Your task to perform on an android device: Clear the shopping cart on costco.com. Add "apple airpods pro" to the cart on costco.com Image 0: 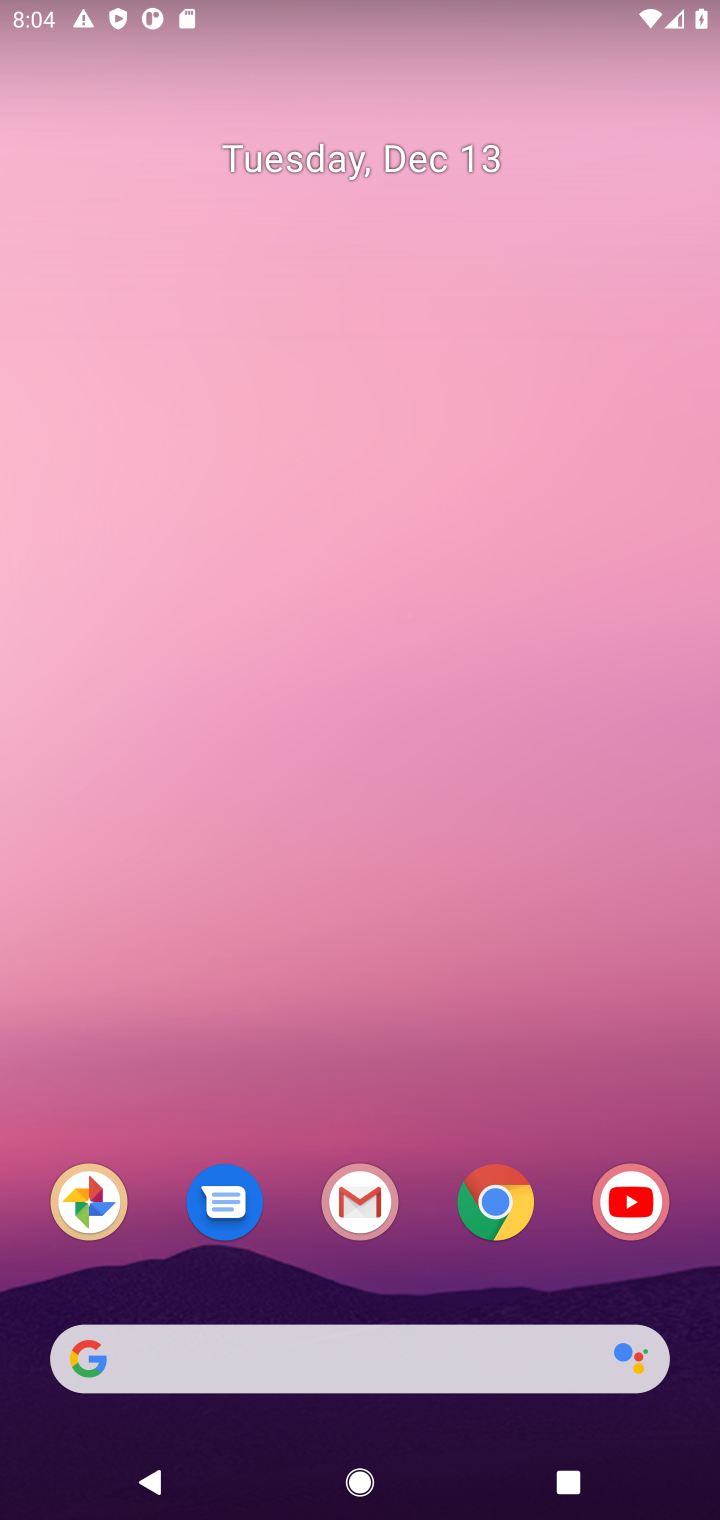
Step 0: click (492, 1206)
Your task to perform on an android device: Clear the shopping cart on costco.com. Add "apple airpods pro" to the cart on costco.com Image 1: 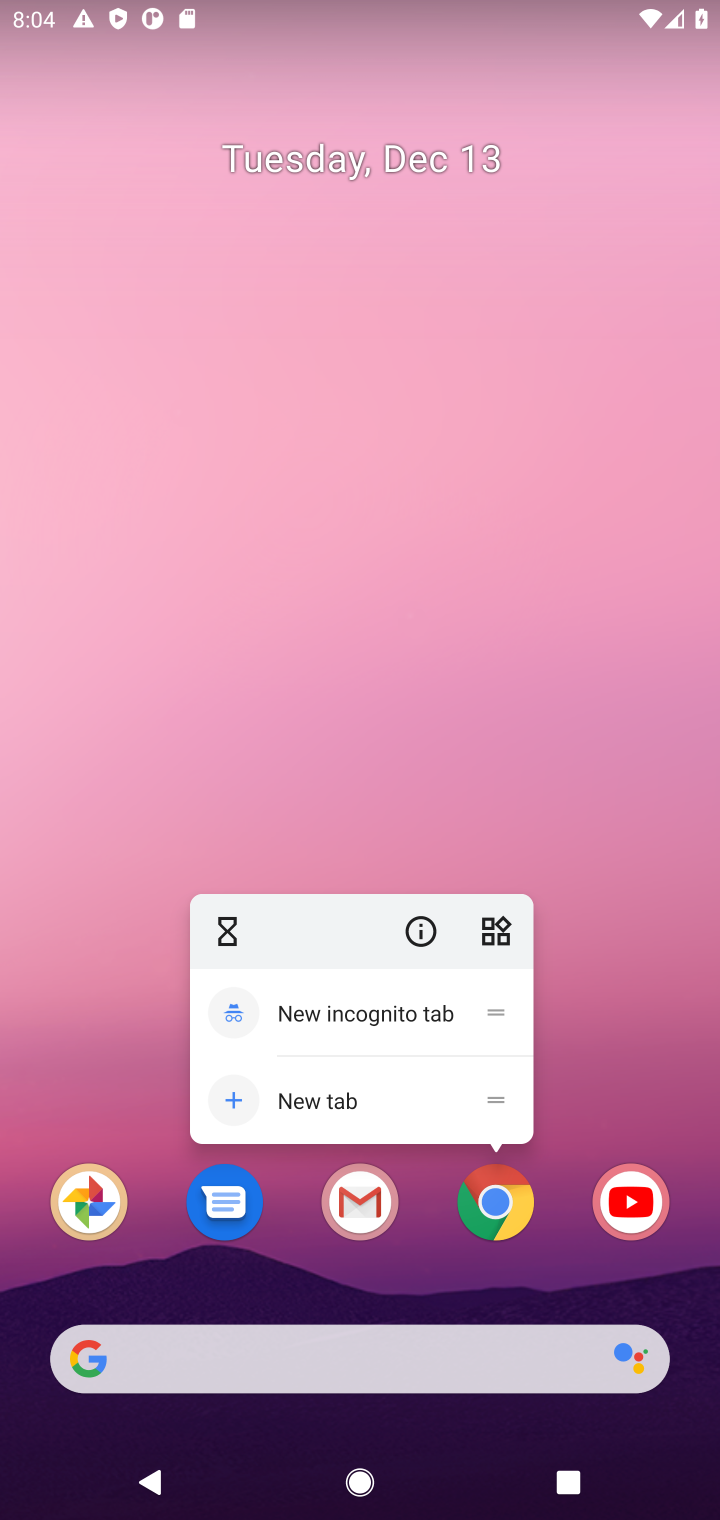
Step 1: click (492, 1206)
Your task to perform on an android device: Clear the shopping cart on costco.com. Add "apple airpods pro" to the cart on costco.com Image 2: 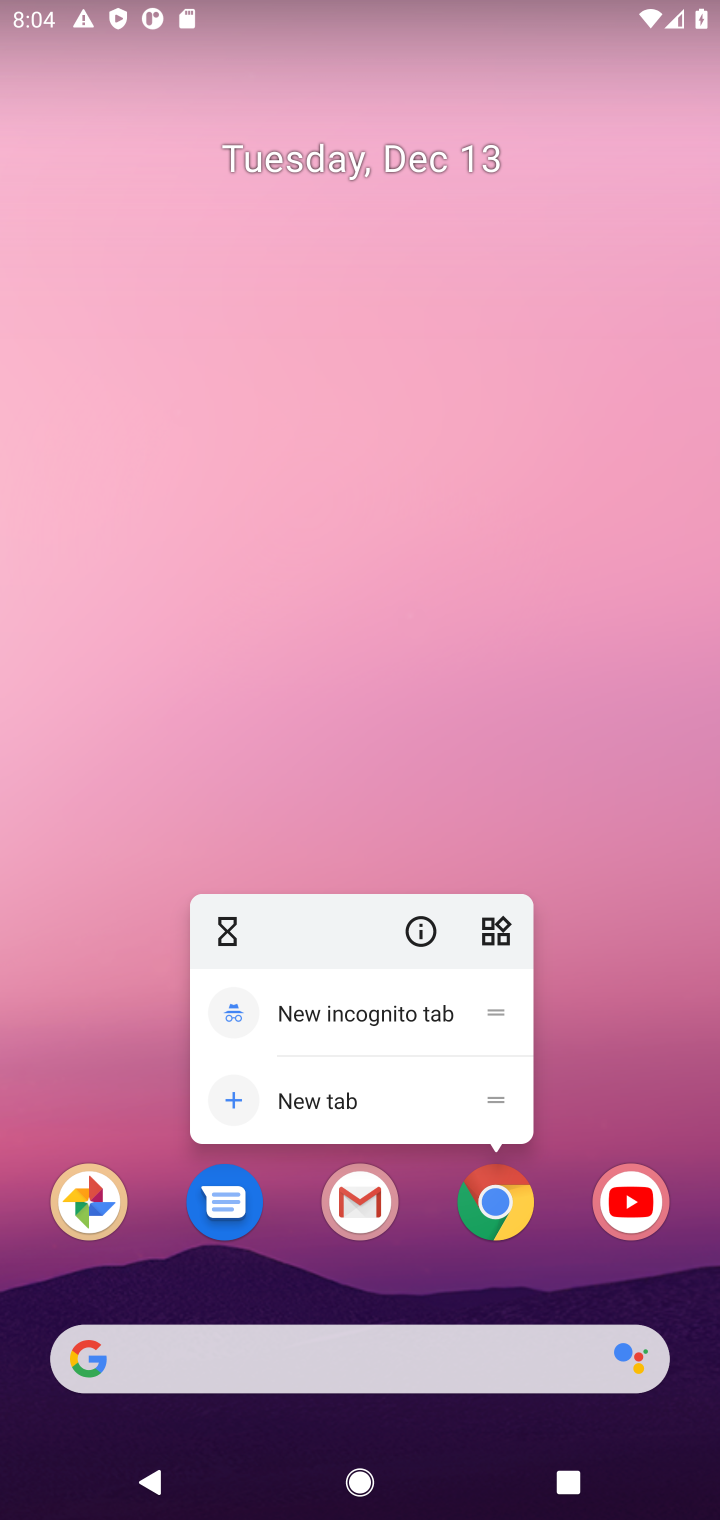
Step 2: click (494, 1213)
Your task to perform on an android device: Clear the shopping cart on costco.com. Add "apple airpods pro" to the cart on costco.com Image 3: 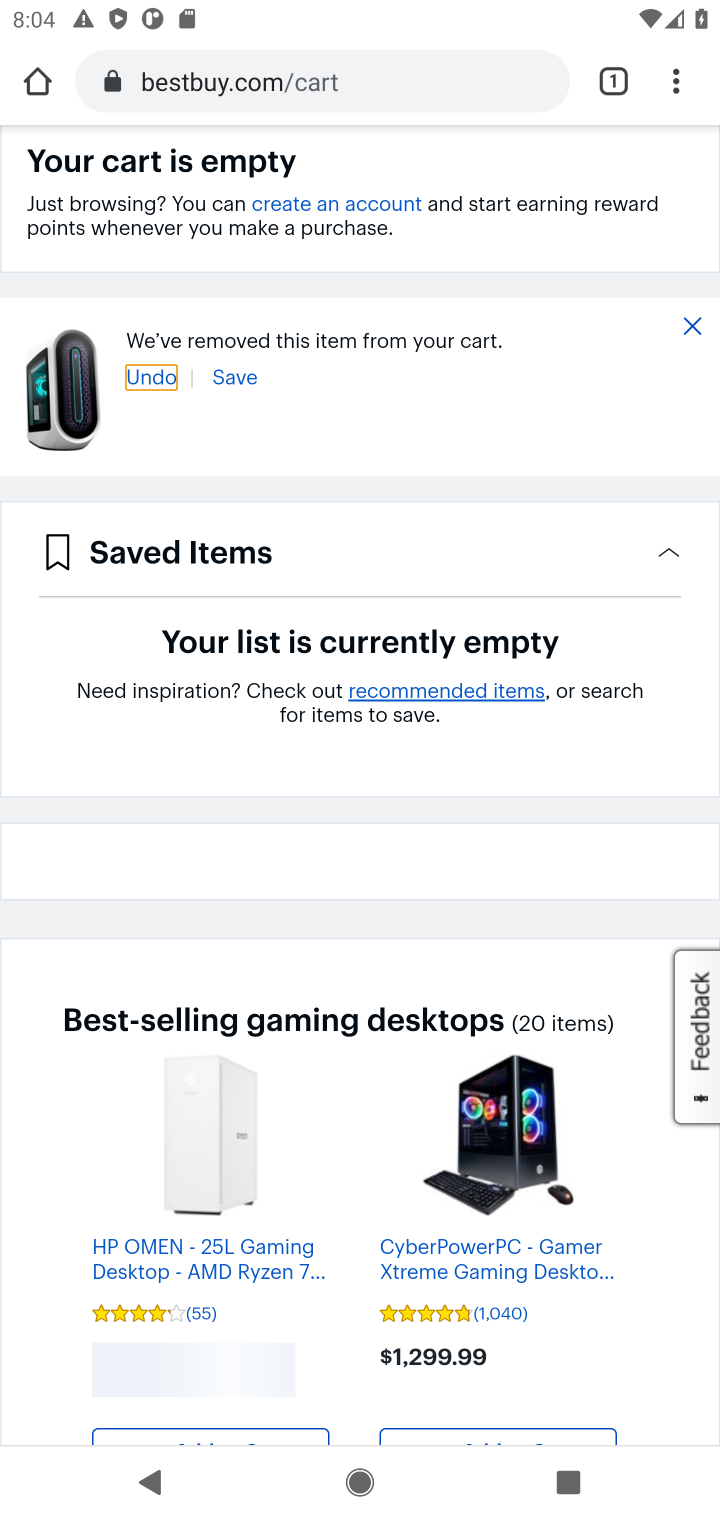
Step 3: click (251, 82)
Your task to perform on an android device: Clear the shopping cart on costco.com. Add "apple airpods pro" to the cart on costco.com Image 4: 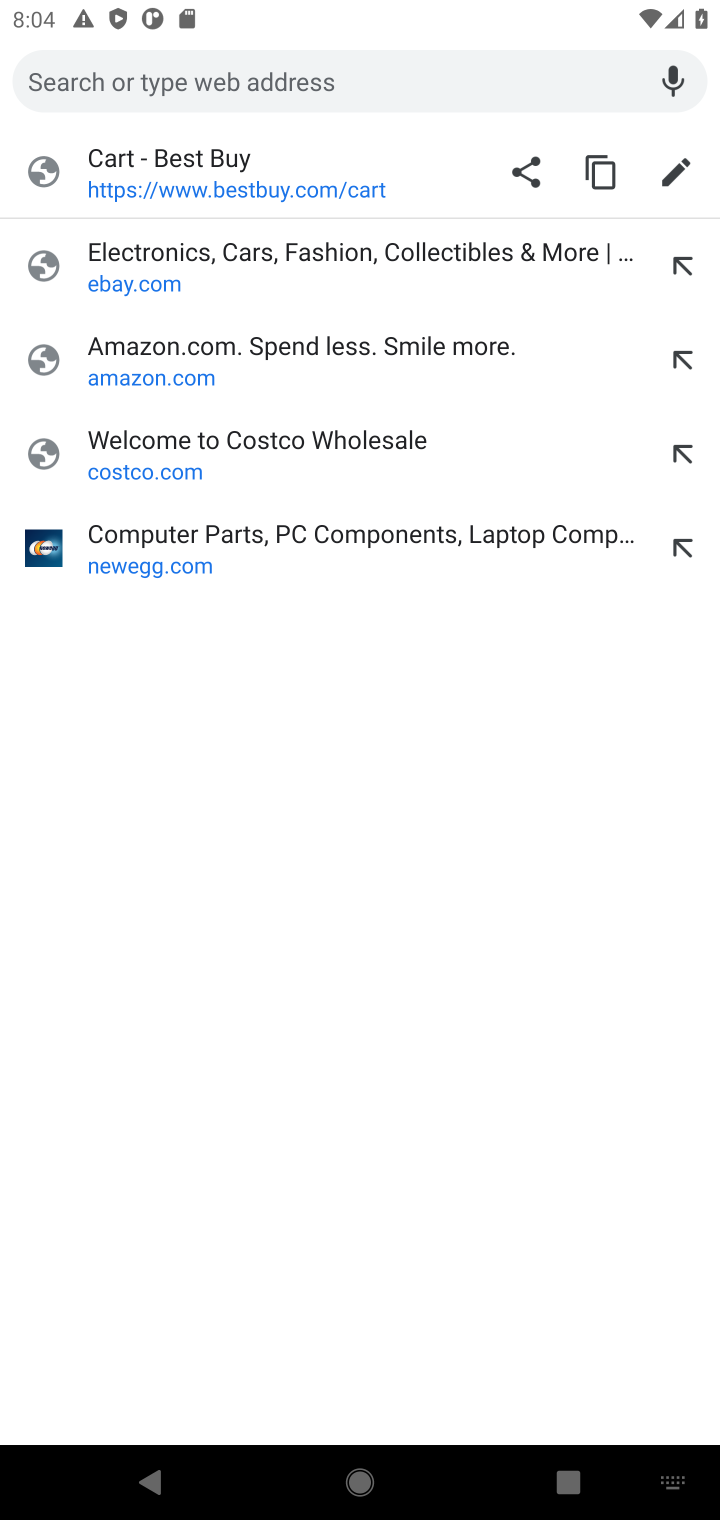
Step 4: click (124, 469)
Your task to perform on an android device: Clear the shopping cart on costco.com. Add "apple airpods pro" to the cart on costco.com Image 5: 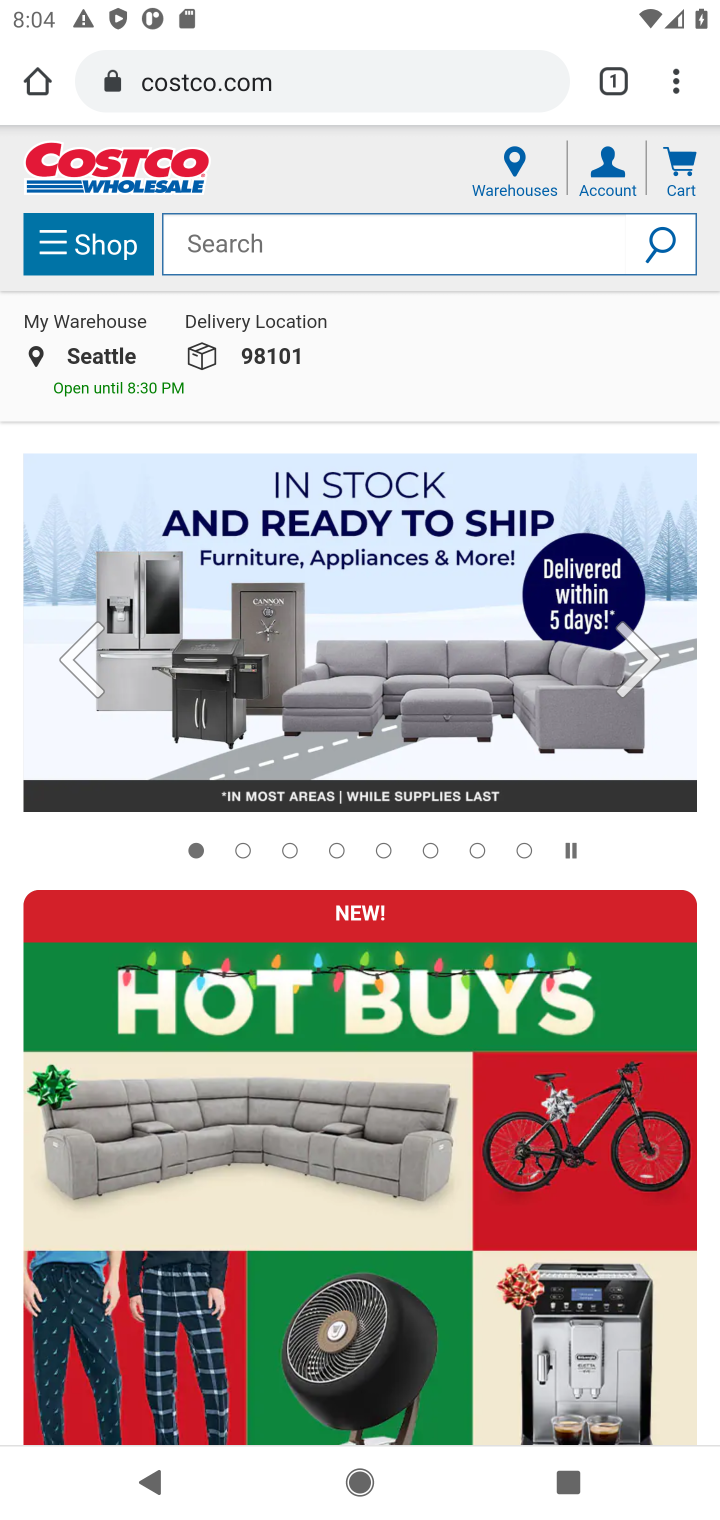
Step 5: click (685, 176)
Your task to perform on an android device: Clear the shopping cart on costco.com. Add "apple airpods pro" to the cart on costco.com Image 6: 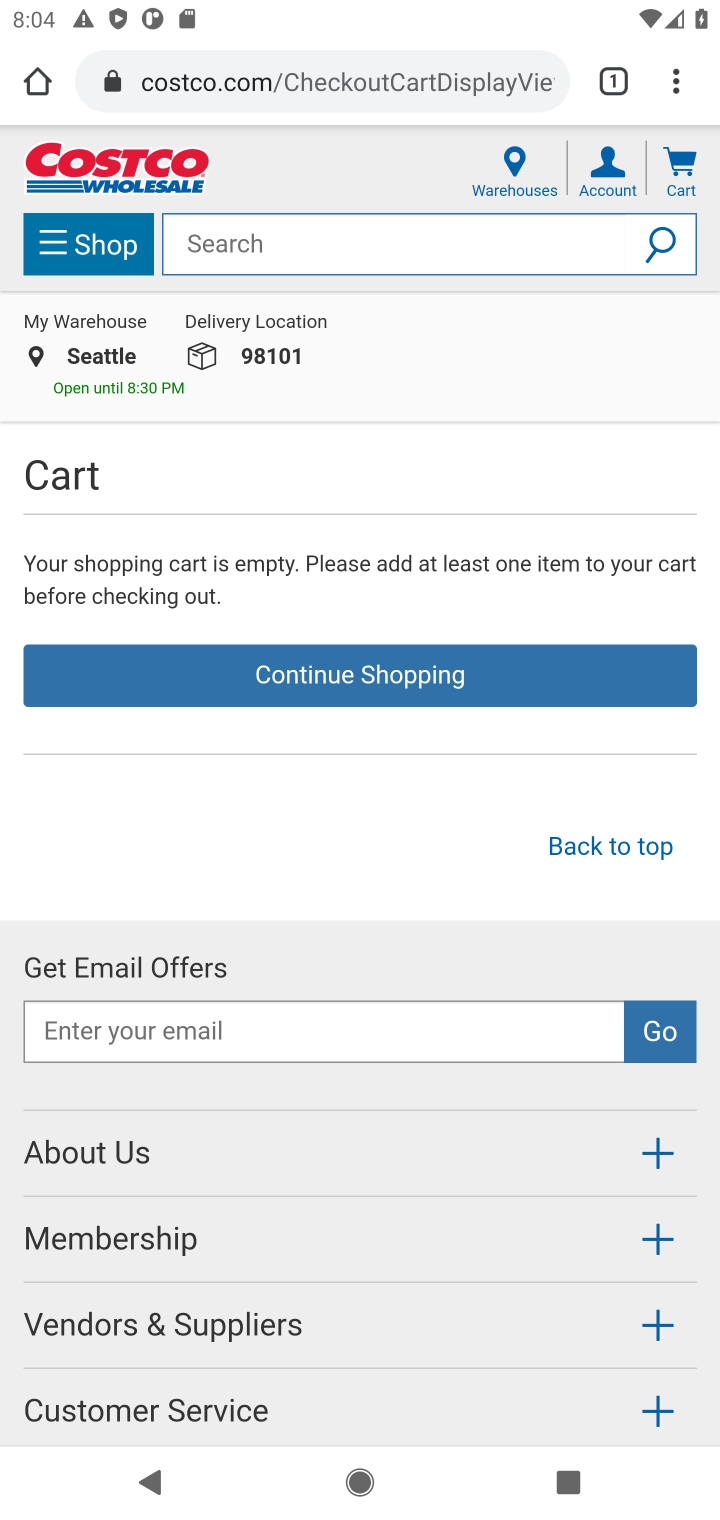
Step 6: click (238, 246)
Your task to perform on an android device: Clear the shopping cart on costco.com. Add "apple airpods pro" to the cart on costco.com Image 7: 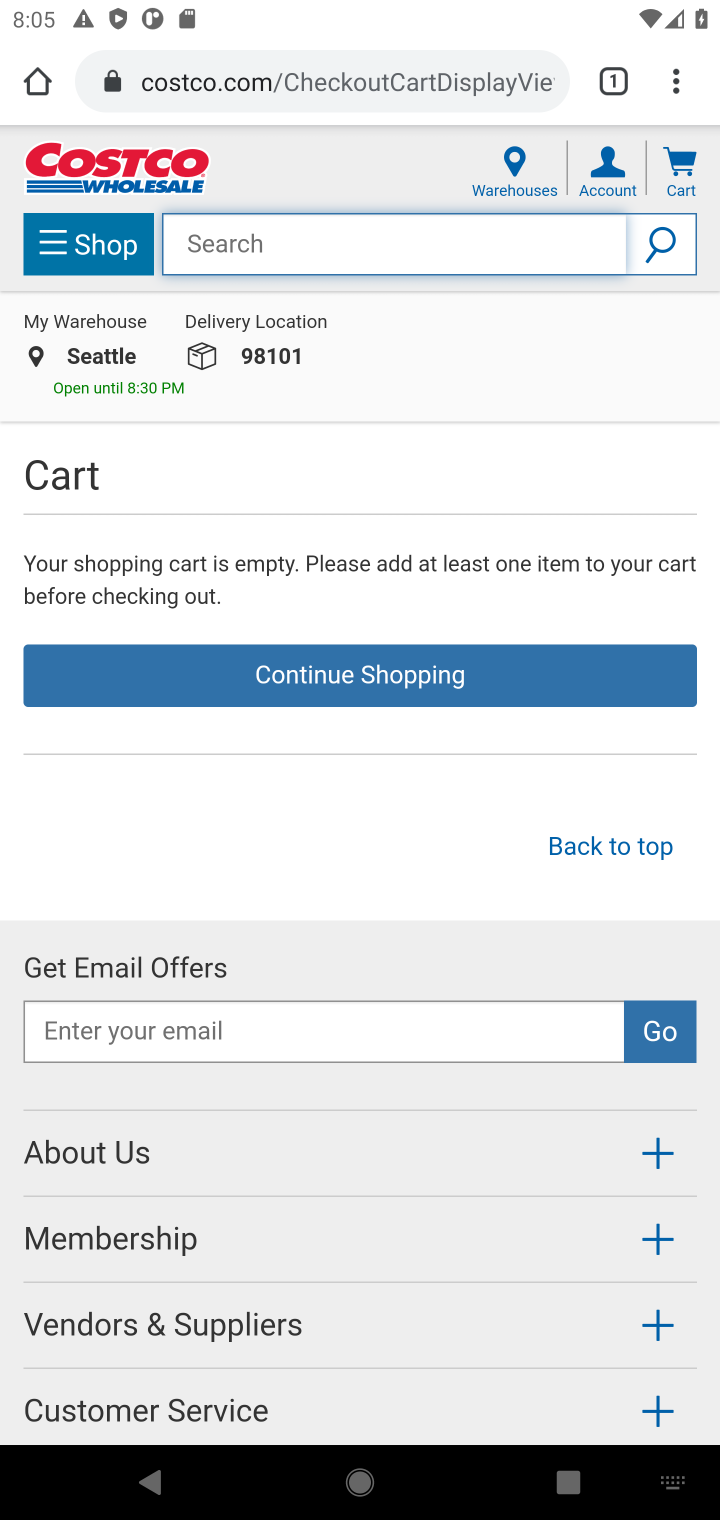
Step 7: type "apple airpods pro"
Your task to perform on an android device: Clear the shopping cart on costco.com. Add "apple airpods pro" to the cart on costco.com Image 8: 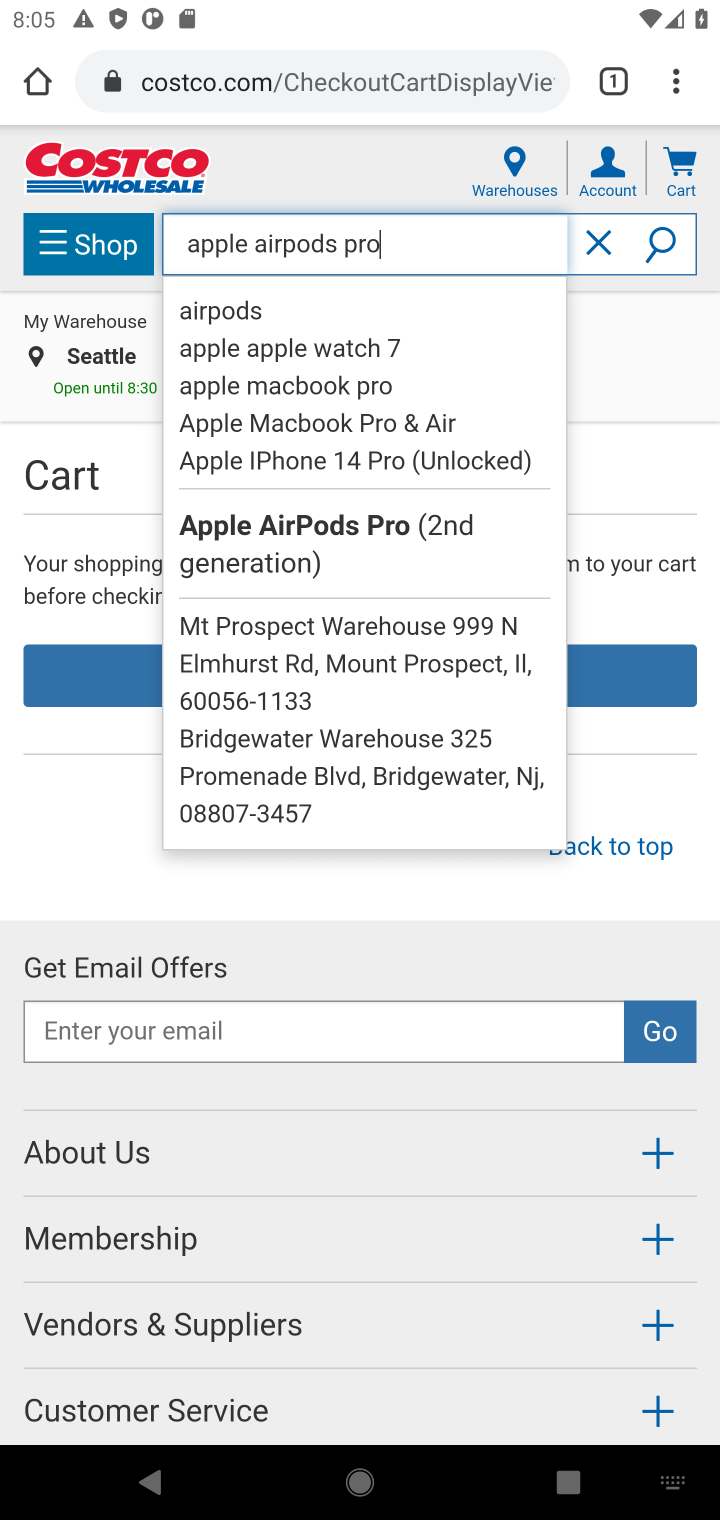
Step 8: click (675, 249)
Your task to perform on an android device: Clear the shopping cart on costco.com. Add "apple airpods pro" to the cart on costco.com Image 9: 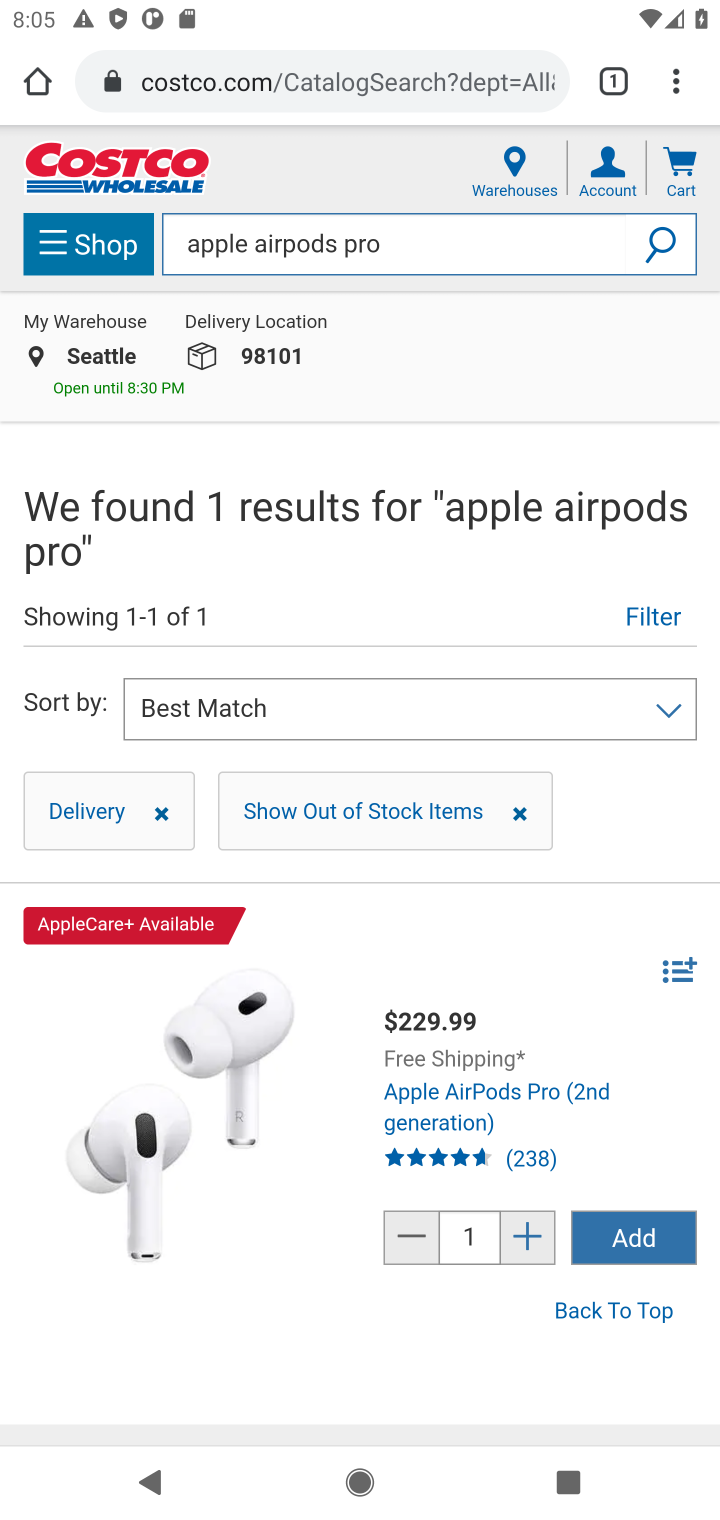
Step 9: drag from (302, 1155) to (304, 712)
Your task to perform on an android device: Clear the shopping cart on costco.com. Add "apple airpods pro" to the cart on costco.com Image 10: 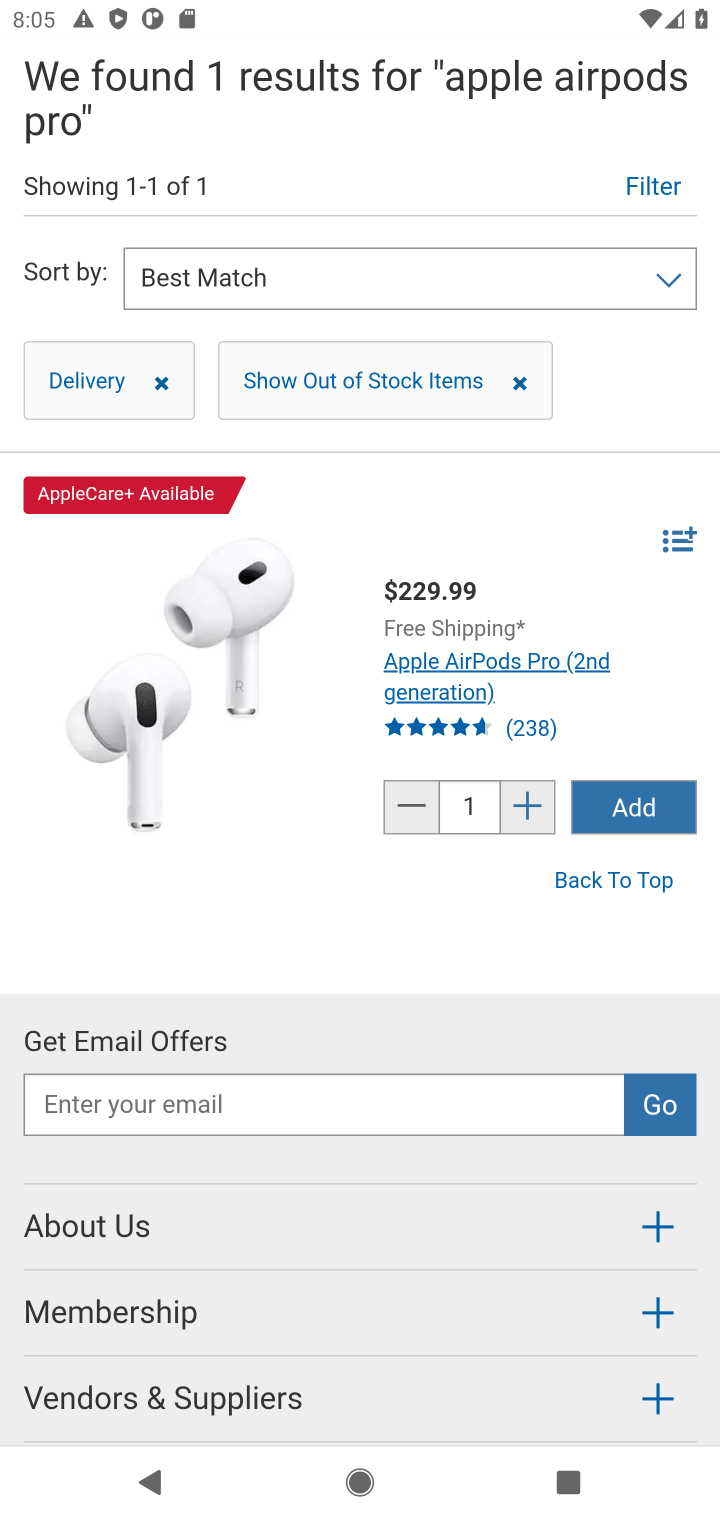
Step 10: click (670, 815)
Your task to perform on an android device: Clear the shopping cart on costco.com. Add "apple airpods pro" to the cart on costco.com Image 11: 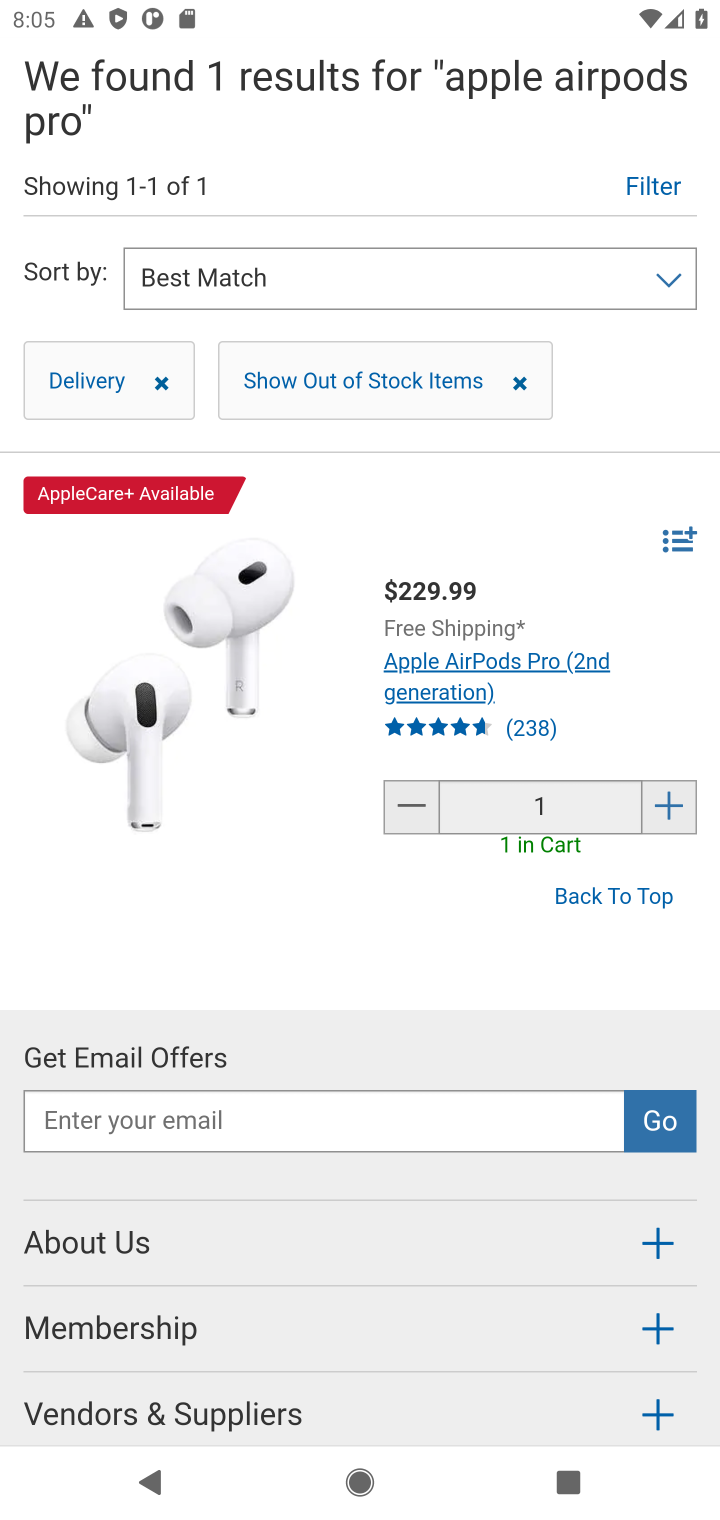
Step 11: task complete